Your task to perform on an android device: Open Chrome and go to settings Image 0: 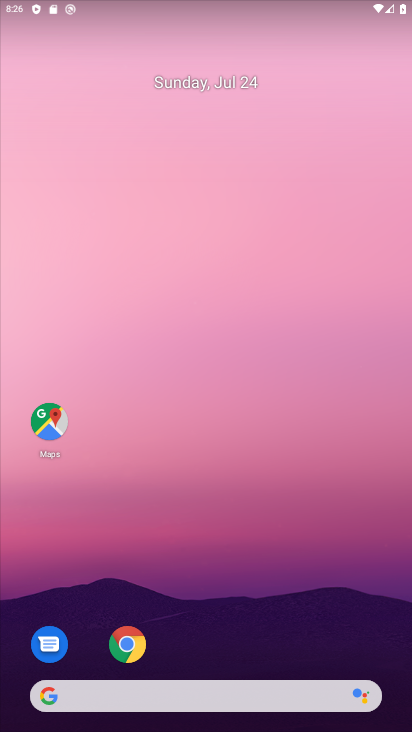
Step 0: click (129, 643)
Your task to perform on an android device: Open Chrome and go to settings Image 1: 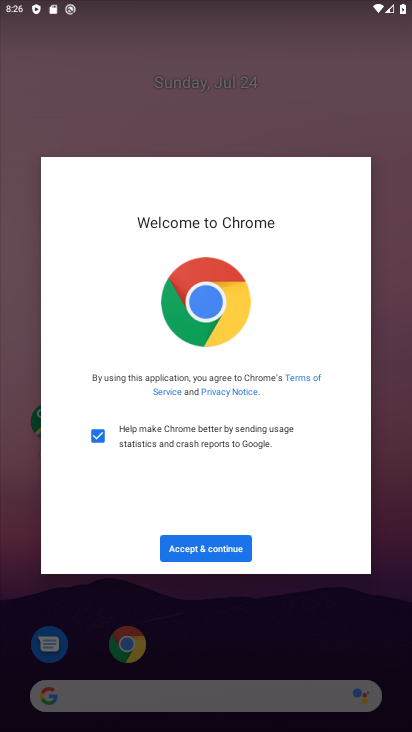
Step 1: click (212, 548)
Your task to perform on an android device: Open Chrome and go to settings Image 2: 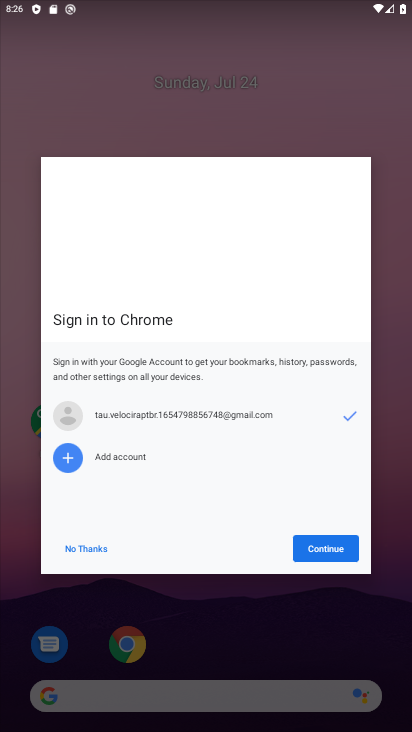
Step 2: click (319, 541)
Your task to perform on an android device: Open Chrome and go to settings Image 3: 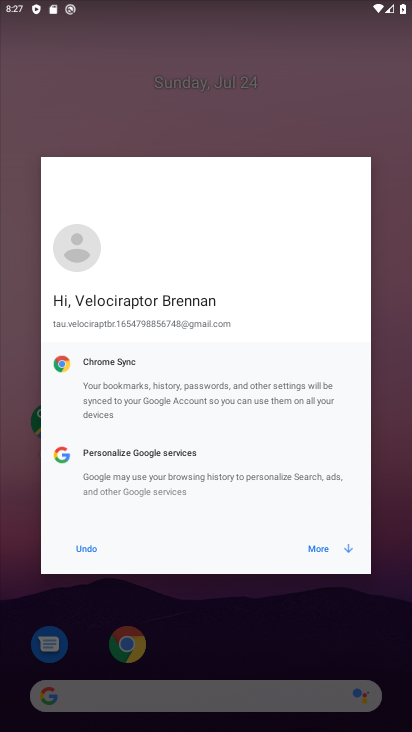
Step 3: click (331, 552)
Your task to perform on an android device: Open Chrome and go to settings Image 4: 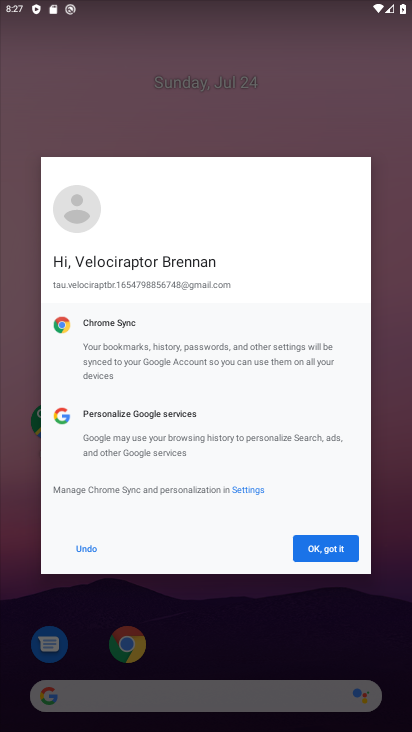
Step 4: click (324, 544)
Your task to perform on an android device: Open Chrome and go to settings Image 5: 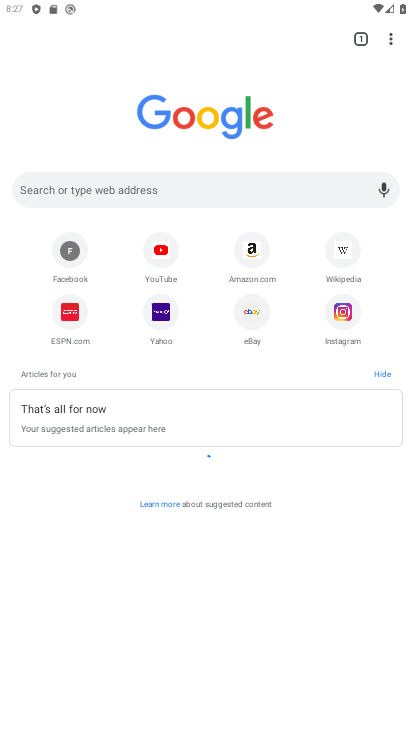
Step 5: click (391, 42)
Your task to perform on an android device: Open Chrome and go to settings Image 6: 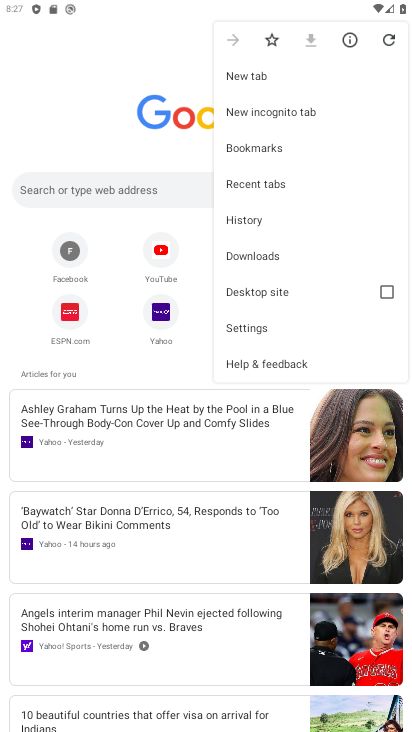
Step 6: click (254, 334)
Your task to perform on an android device: Open Chrome and go to settings Image 7: 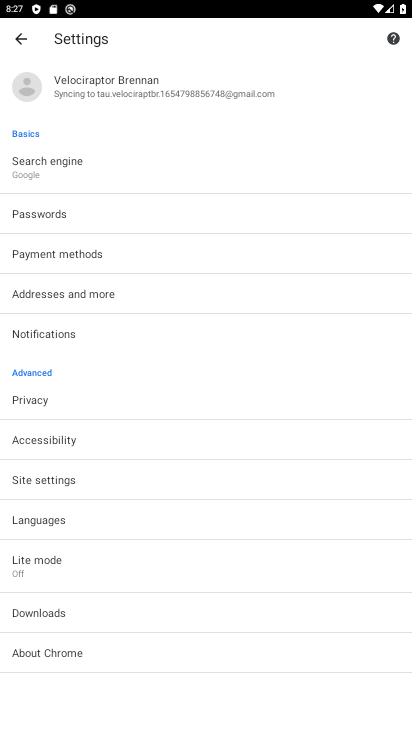
Step 7: task complete